Your task to perform on an android device: Open Yahoo.com Image 0: 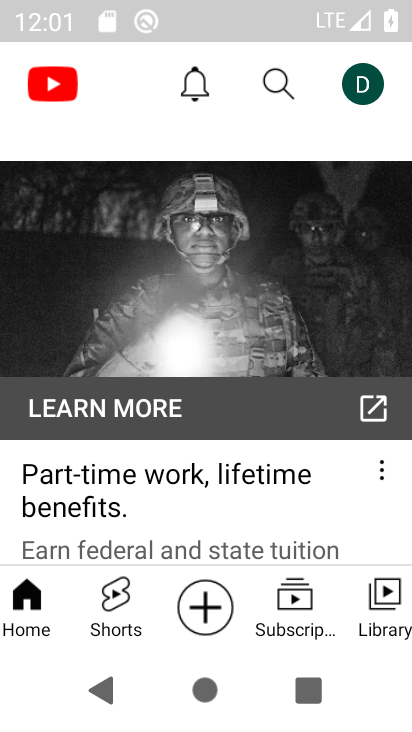
Step 0: press home button
Your task to perform on an android device: Open Yahoo.com Image 1: 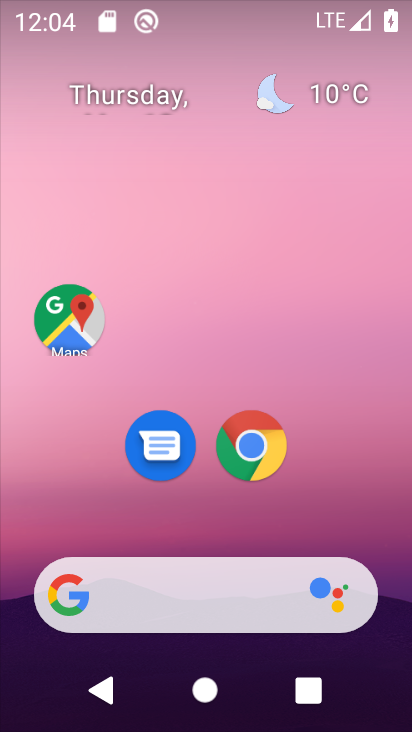
Step 1: click (237, 433)
Your task to perform on an android device: Open Yahoo.com Image 2: 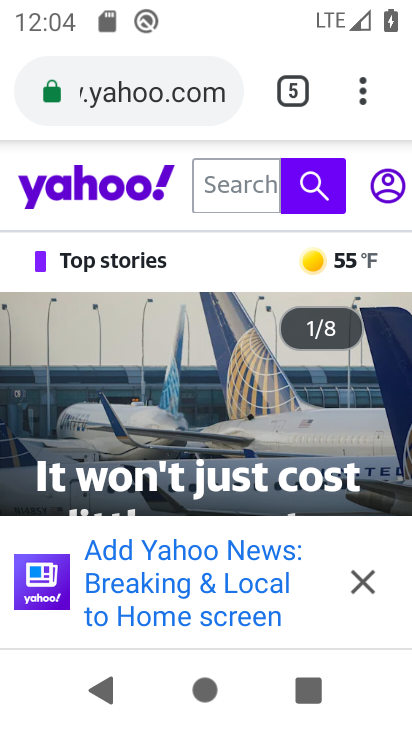
Step 2: task complete